Your task to perform on an android device: Open Wikipedia Image 0: 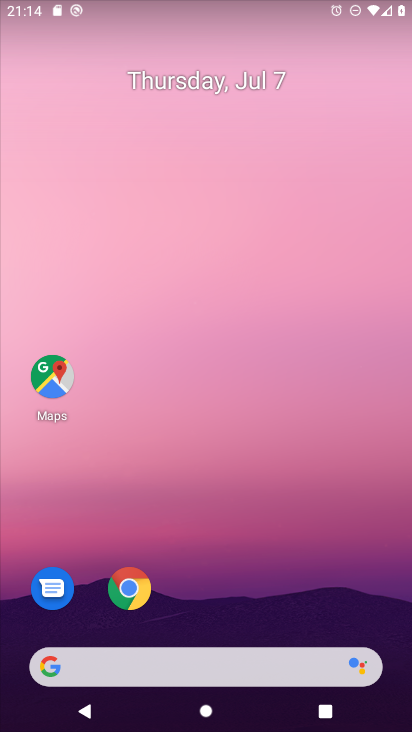
Step 0: drag from (261, 593) to (233, 180)
Your task to perform on an android device: Open Wikipedia Image 1: 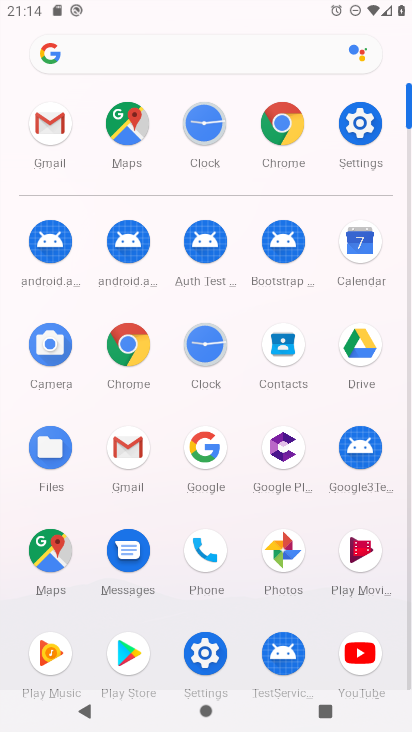
Step 1: click (141, 333)
Your task to perform on an android device: Open Wikipedia Image 2: 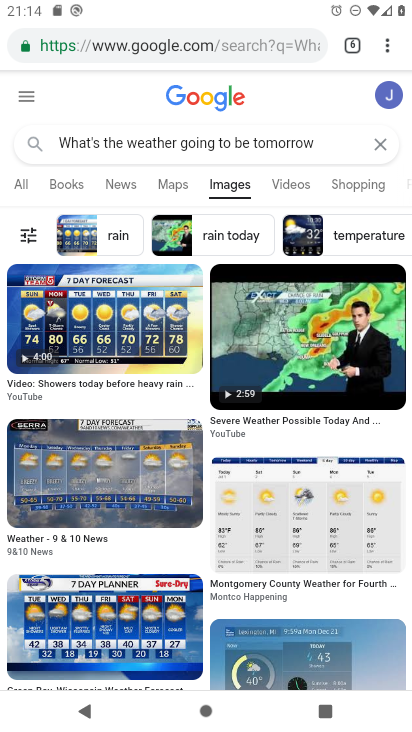
Step 2: click (386, 49)
Your task to perform on an android device: Open Wikipedia Image 3: 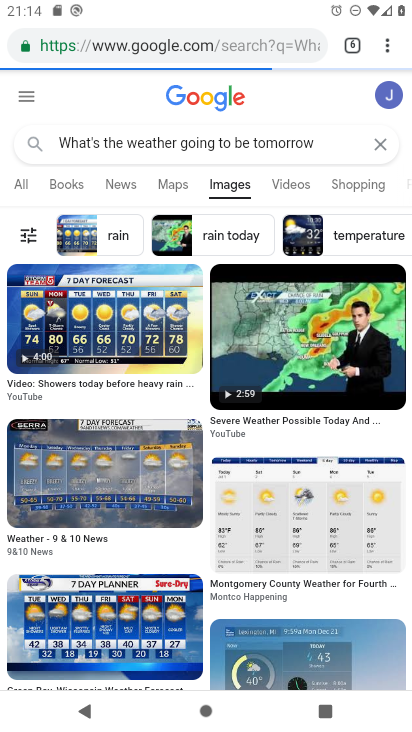
Step 3: click (394, 37)
Your task to perform on an android device: Open Wikipedia Image 4: 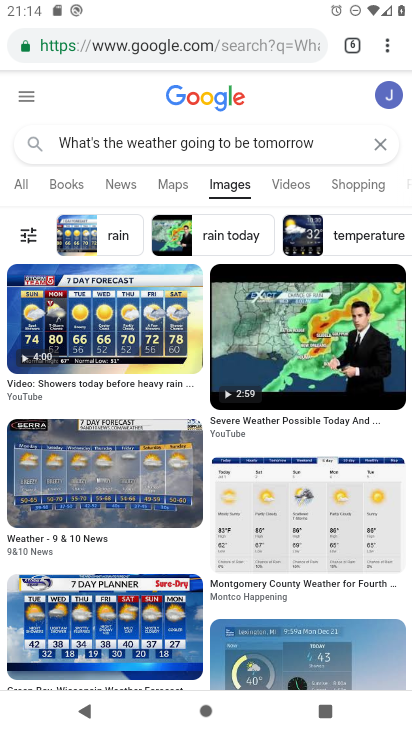
Step 4: click (386, 44)
Your task to perform on an android device: Open Wikipedia Image 5: 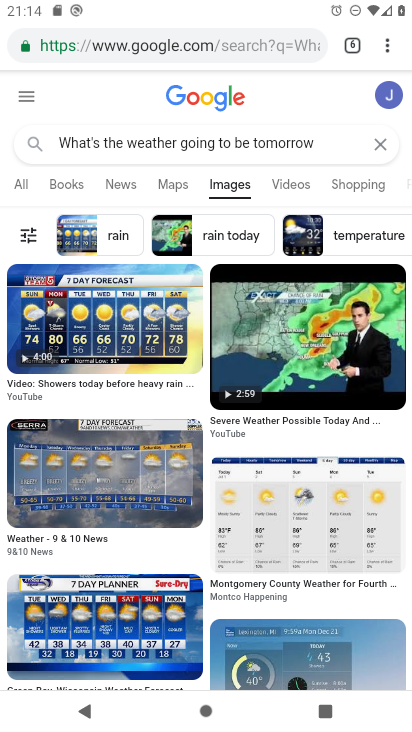
Step 5: click (398, 36)
Your task to perform on an android device: Open Wikipedia Image 6: 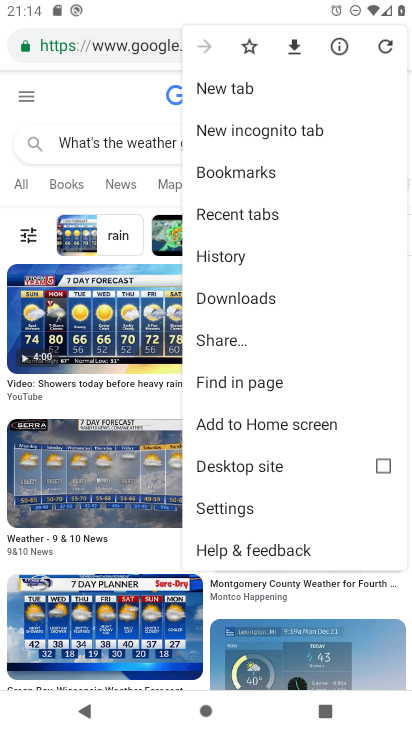
Step 6: click (267, 94)
Your task to perform on an android device: Open Wikipedia Image 7: 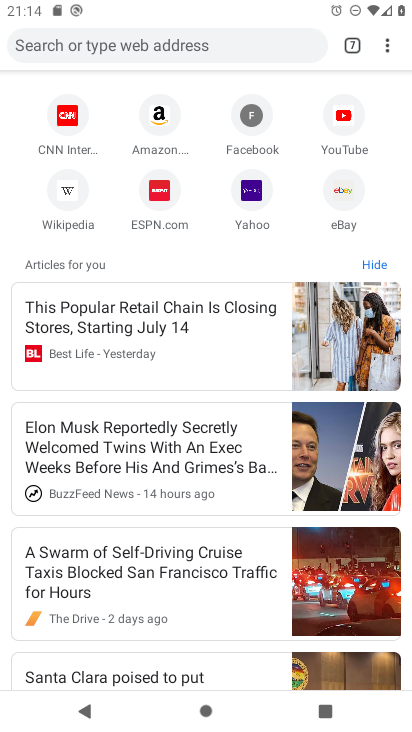
Step 7: click (74, 207)
Your task to perform on an android device: Open Wikipedia Image 8: 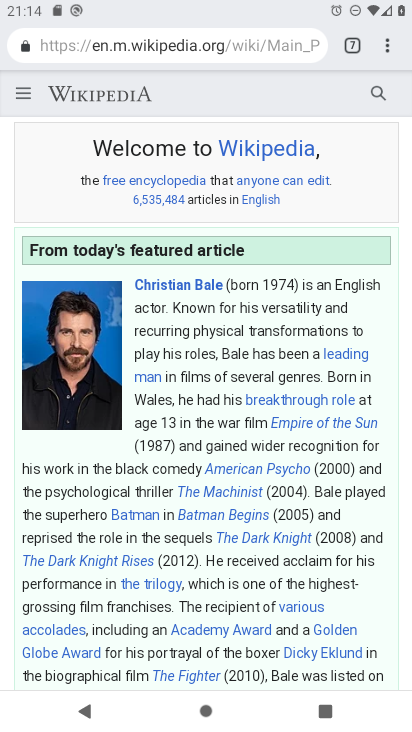
Step 8: task complete